Your task to perform on an android device: turn vacation reply on in the gmail app Image 0: 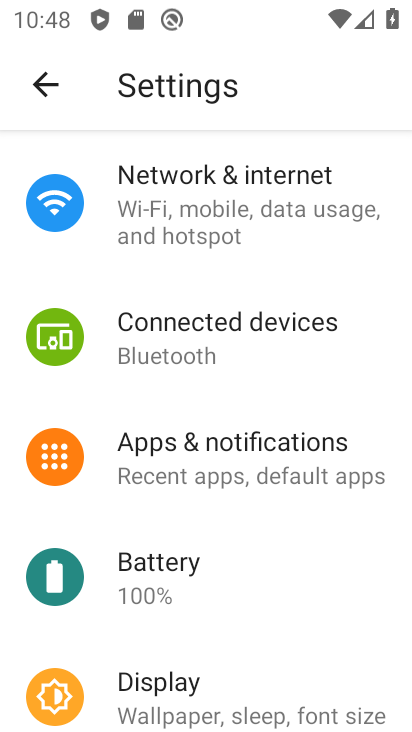
Step 0: press home button
Your task to perform on an android device: turn vacation reply on in the gmail app Image 1: 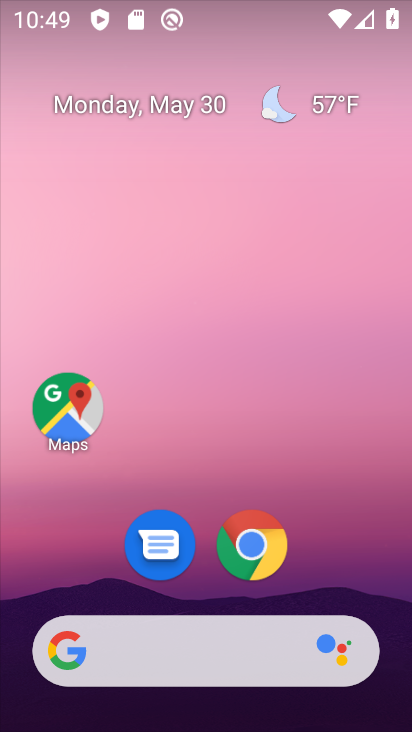
Step 1: drag from (235, 696) to (338, 82)
Your task to perform on an android device: turn vacation reply on in the gmail app Image 2: 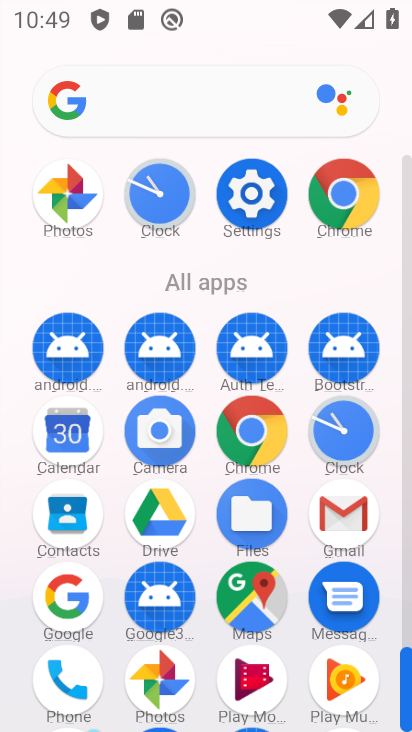
Step 2: click (343, 507)
Your task to perform on an android device: turn vacation reply on in the gmail app Image 3: 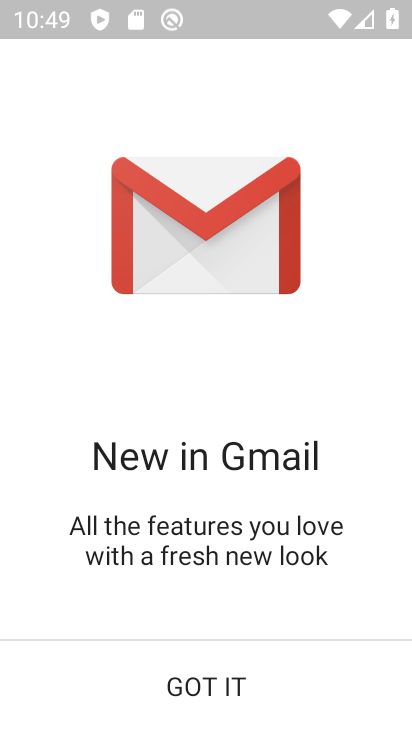
Step 3: click (198, 687)
Your task to perform on an android device: turn vacation reply on in the gmail app Image 4: 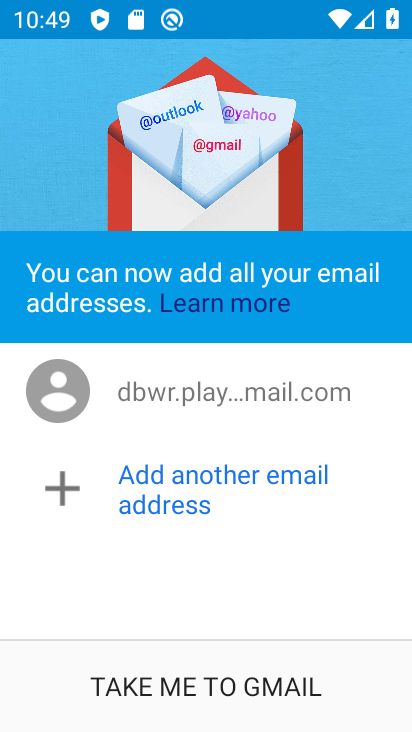
Step 4: click (198, 687)
Your task to perform on an android device: turn vacation reply on in the gmail app Image 5: 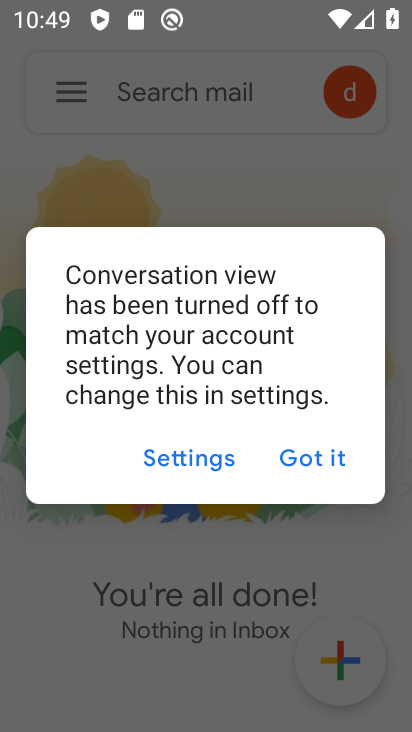
Step 5: click (303, 455)
Your task to perform on an android device: turn vacation reply on in the gmail app Image 6: 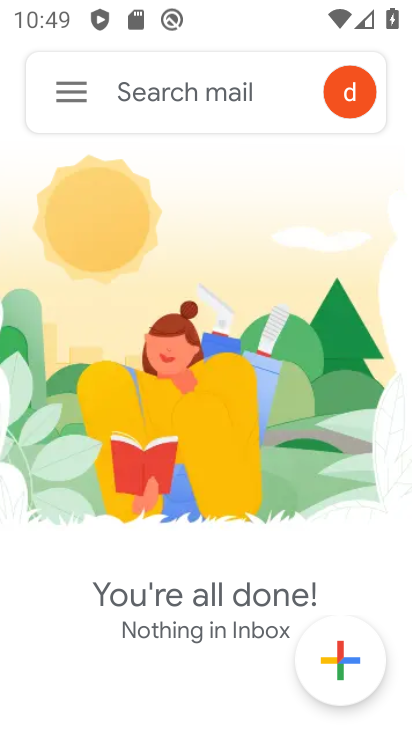
Step 6: click (63, 89)
Your task to perform on an android device: turn vacation reply on in the gmail app Image 7: 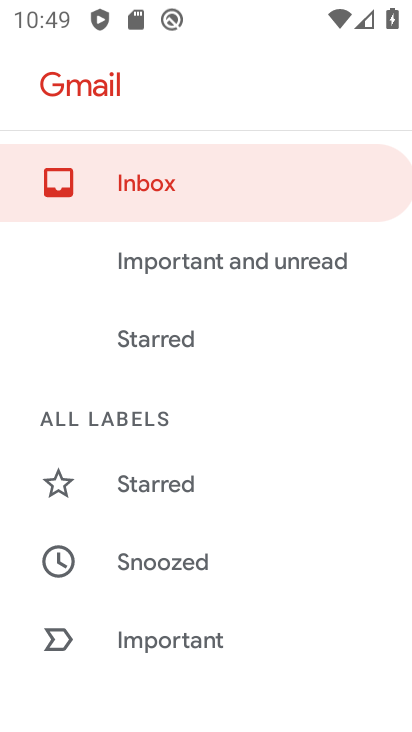
Step 7: drag from (213, 581) to (292, 59)
Your task to perform on an android device: turn vacation reply on in the gmail app Image 8: 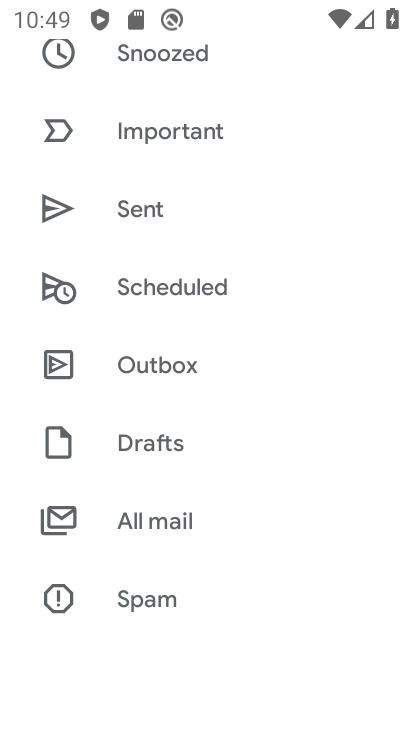
Step 8: drag from (143, 514) to (153, 334)
Your task to perform on an android device: turn vacation reply on in the gmail app Image 9: 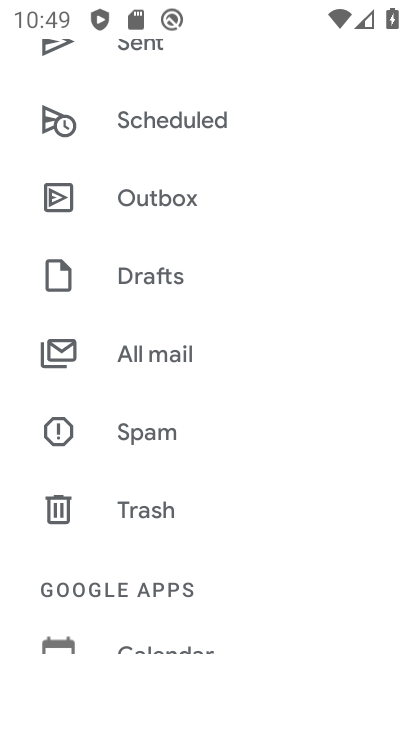
Step 9: drag from (140, 491) to (143, 351)
Your task to perform on an android device: turn vacation reply on in the gmail app Image 10: 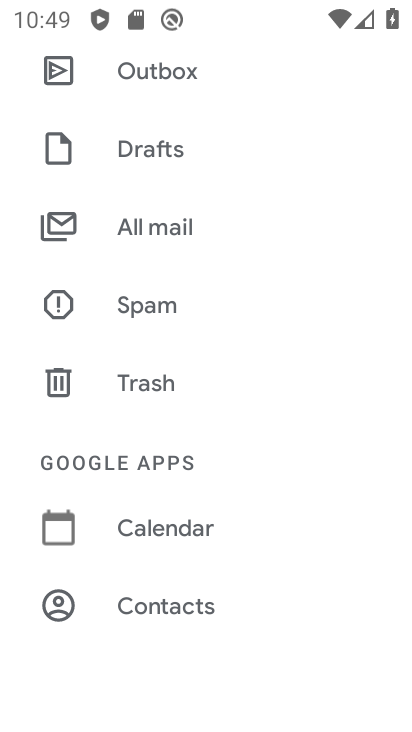
Step 10: drag from (153, 468) to (157, 298)
Your task to perform on an android device: turn vacation reply on in the gmail app Image 11: 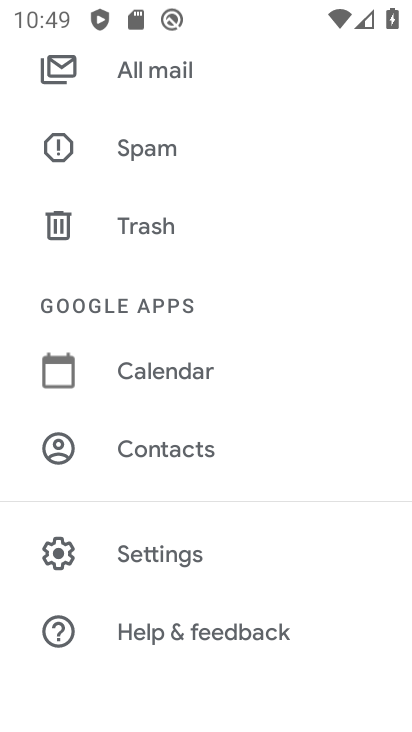
Step 11: click (151, 548)
Your task to perform on an android device: turn vacation reply on in the gmail app Image 12: 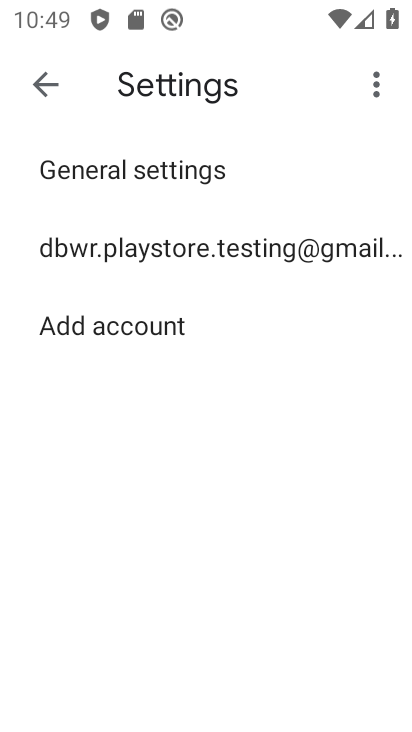
Step 12: click (167, 237)
Your task to perform on an android device: turn vacation reply on in the gmail app Image 13: 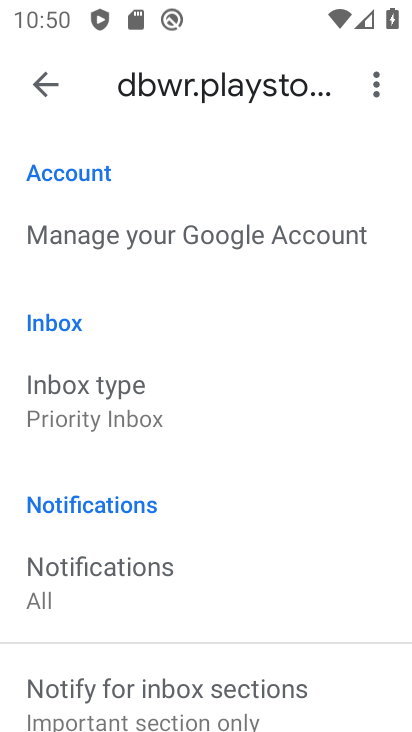
Step 13: drag from (186, 574) to (222, 138)
Your task to perform on an android device: turn vacation reply on in the gmail app Image 14: 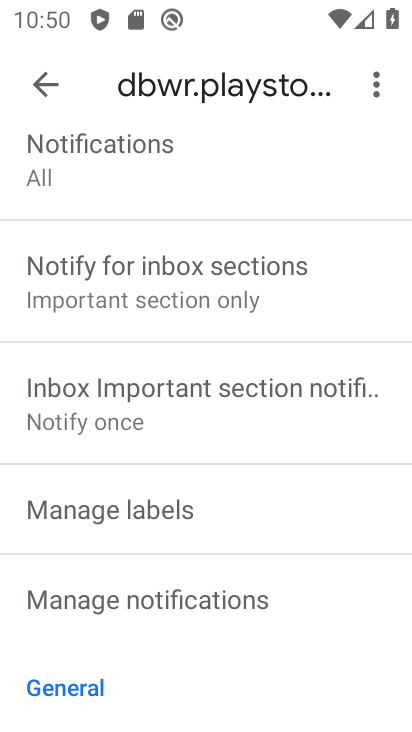
Step 14: drag from (173, 566) to (203, 320)
Your task to perform on an android device: turn vacation reply on in the gmail app Image 15: 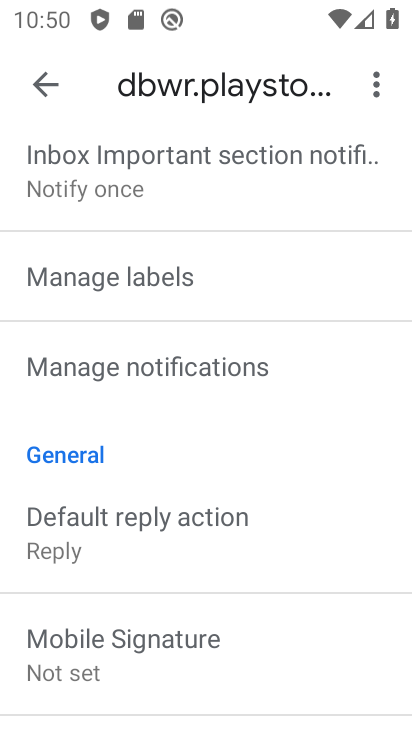
Step 15: drag from (153, 366) to (201, 111)
Your task to perform on an android device: turn vacation reply on in the gmail app Image 16: 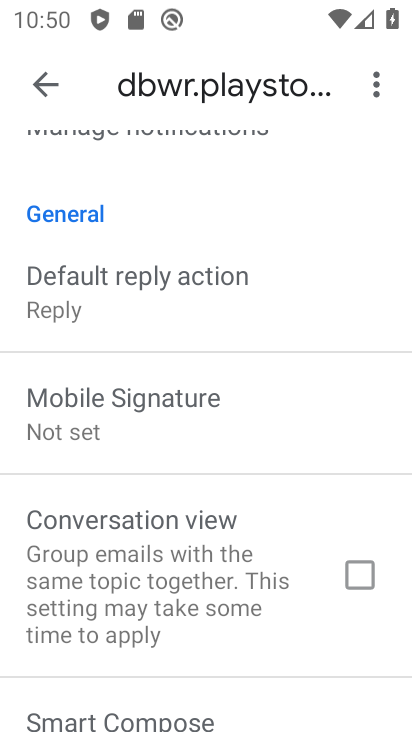
Step 16: drag from (158, 404) to (216, 98)
Your task to perform on an android device: turn vacation reply on in the gmail app Image 17: 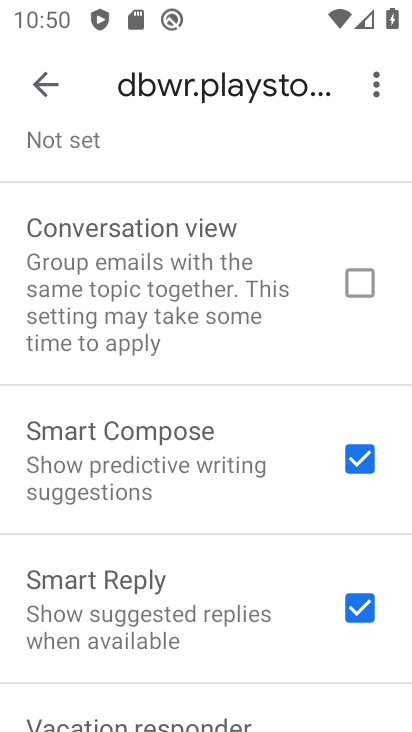
Step 17: click (140, 721)
Your task to perform on an android device: turn vacation reply on in the gmail app Image 18: 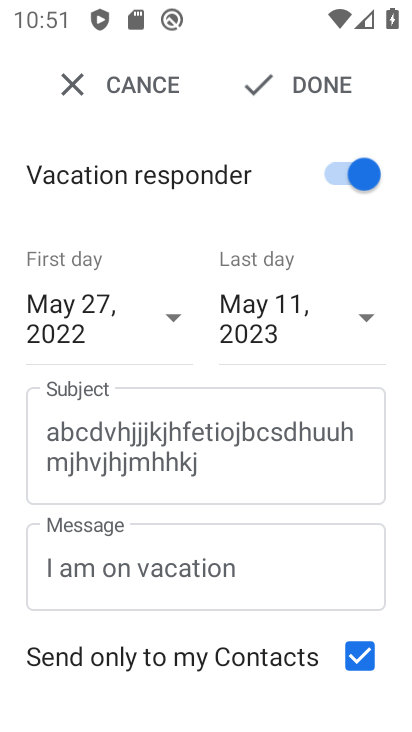
Step 18: task complete